Your task to perform on an android device: Is it going to rain tomorrow? Image 0: 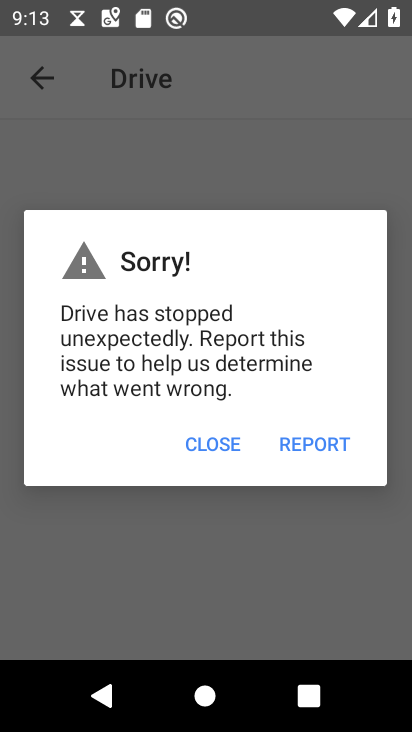
Step 0: press home button
Your task to perform on an android device: Is it going to rain tomorrow? Image 1: 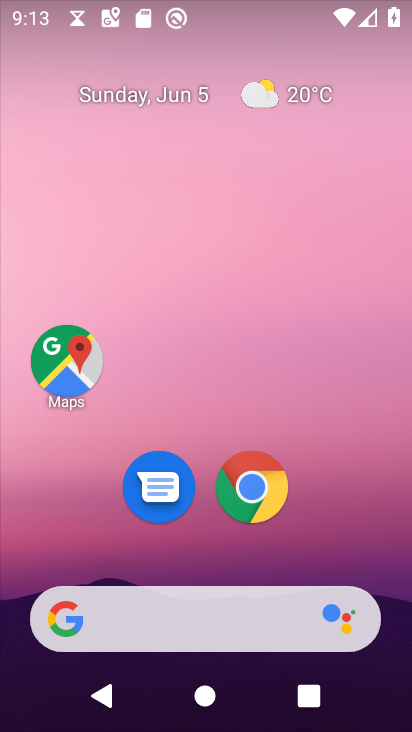
Step 1: click (262, 482)
Your task to perform on an android device: Is it going to rain tomorrow? Image 2: 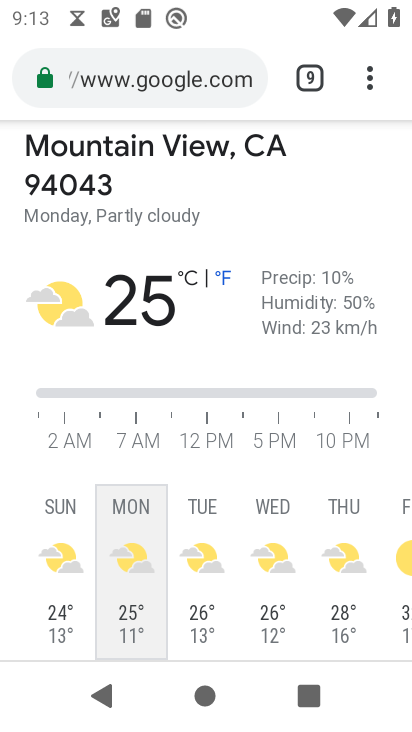
Step 2: click (368, 73)
Your task to perform on an android device: Is it going to rain tomorrow? Image 3: 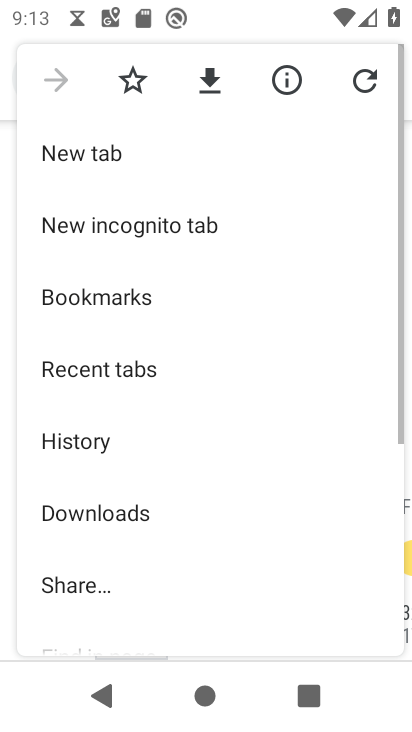
Step 3: click (124, 146)
Your task to perform on an android device: Is it going to rain tomorrow? Image 4: 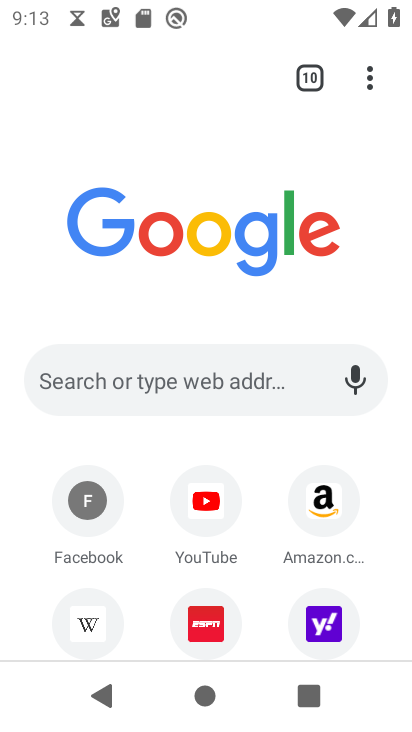
Step 4: click (108, 377)
Your task to perform on an android device: Is it going to rain tomorrow? Image 5: 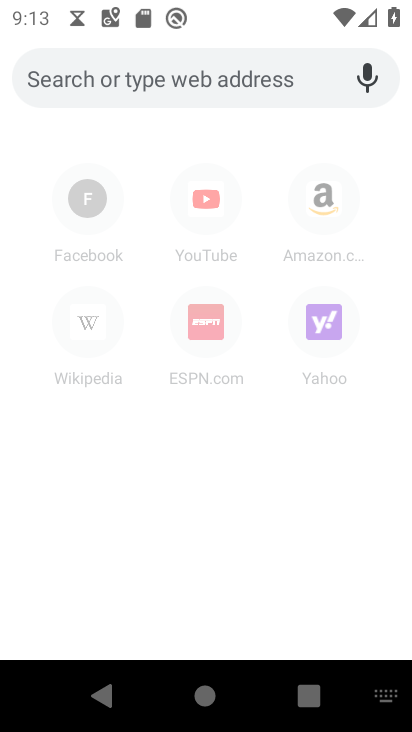
Step 5: type "Is it going to rain tomorrow?"
Your task to perform on an android device: Is it going to rain tomorrow? Image 6: 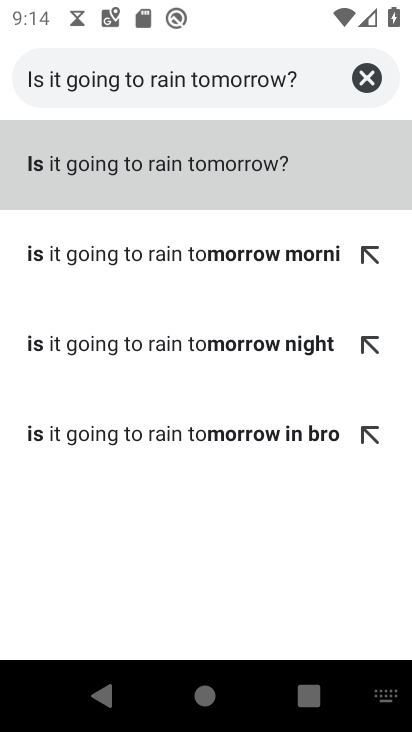
Step 6: click (301, 160)
Your task to perform on an android device: Is it going to rain tomorrow? Image 7: 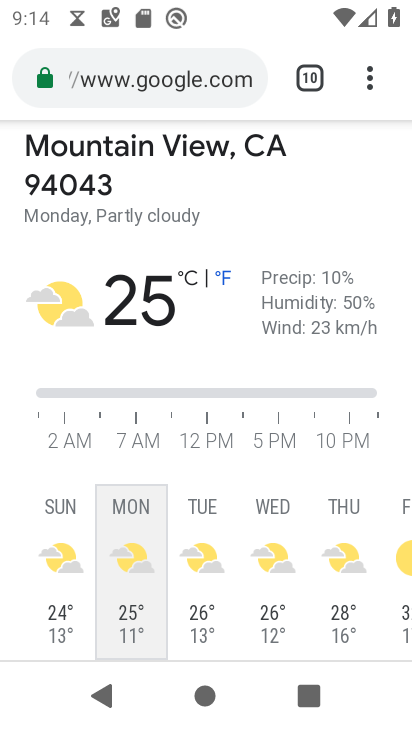
Step 7: task complete